Your task to perform on an android device: check storage Image 0: 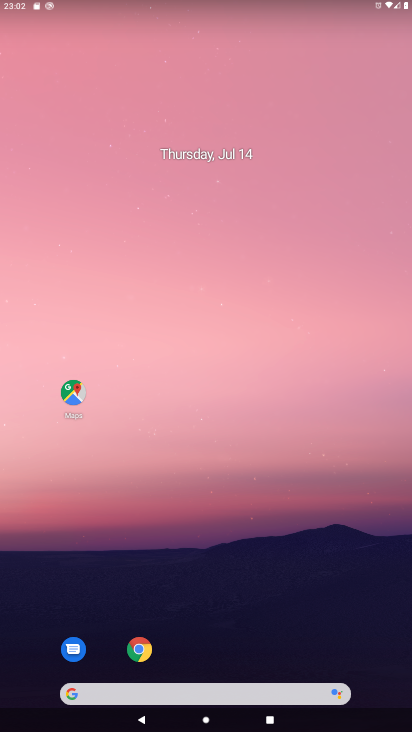
Step 0: drag from (184, 695) to (113, 21)
Your task to perform on an android device: check storage Image 1: 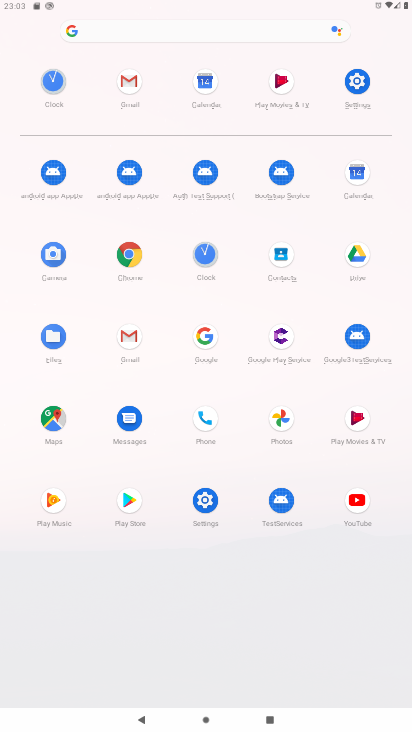
Step 1: click (352, 80)
Your task to perform on an android device: check storage Image 2: 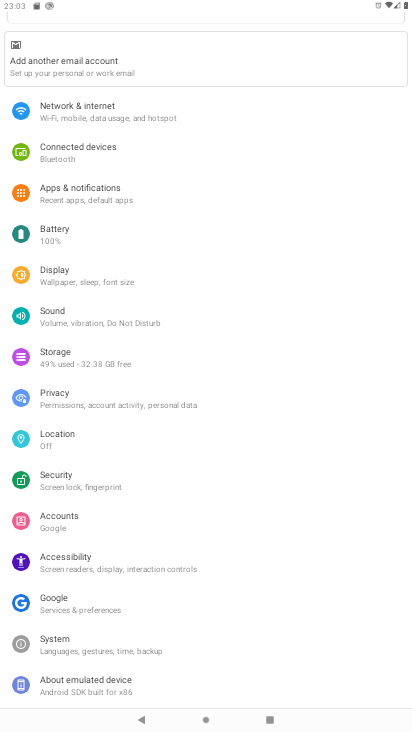
Step 2: click (62, 357)
Your task to perform on an android device: check storage Image 3: 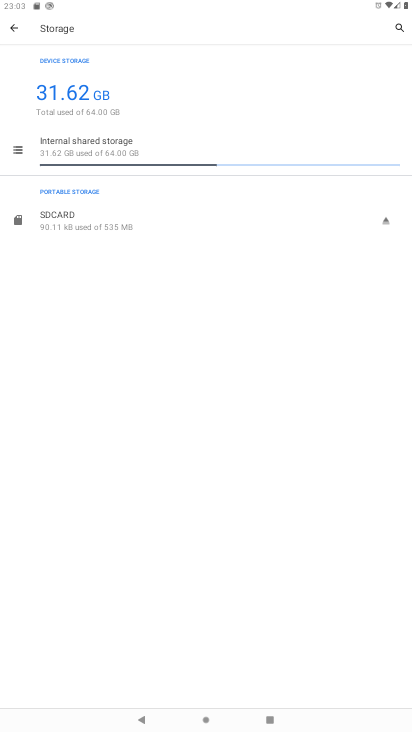
Step 3: task complete